Your task to perform on an android device: check data usage Image 0: 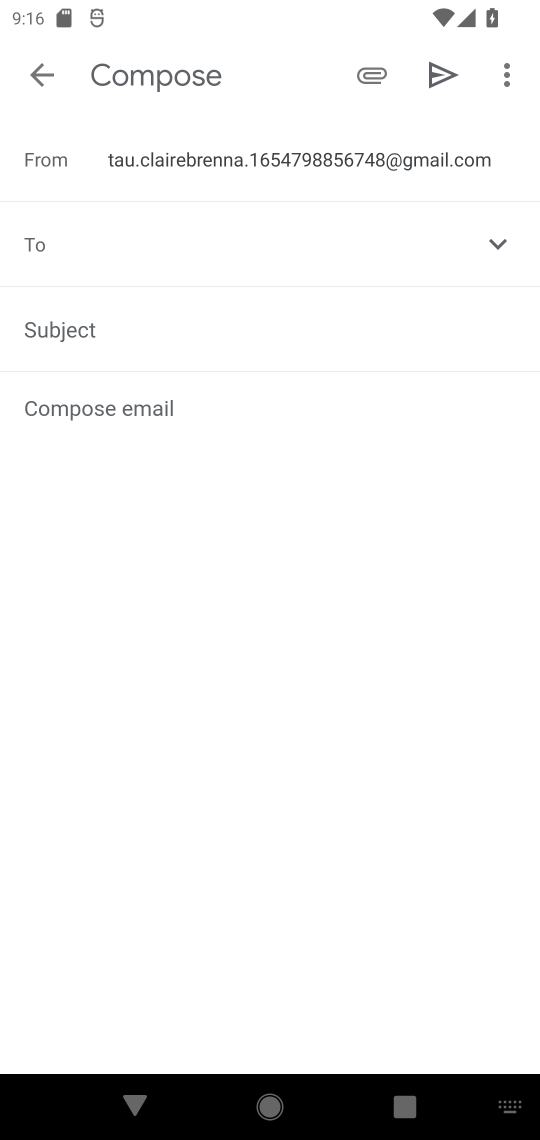
Step 0: press home button
Your task to perform on an android device: check data usage Image 1: 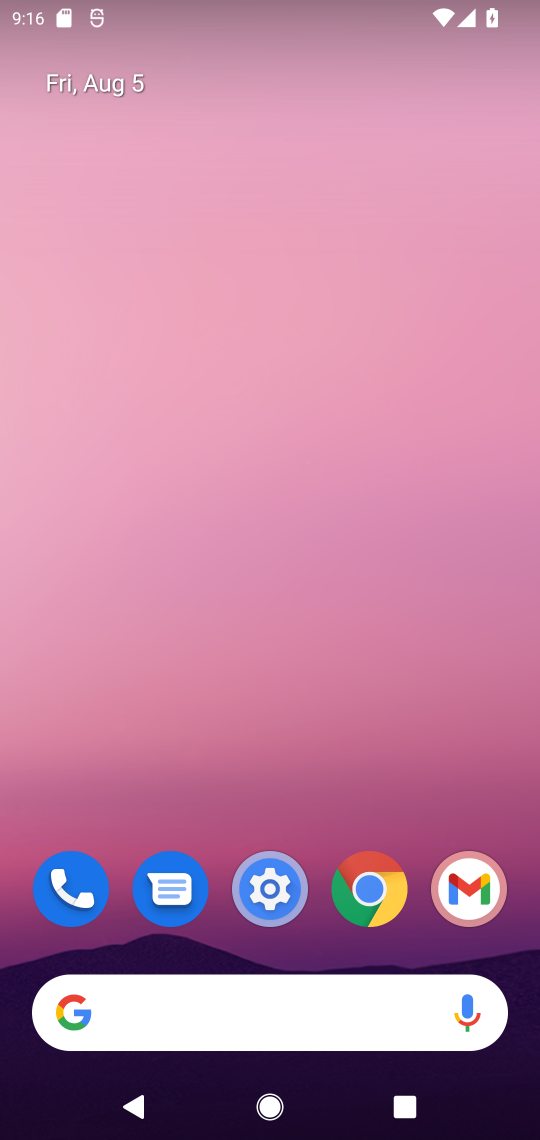
Step 1: drag from (235, 967) to (319, 172)
Your task to perform on an android device: check data usage Image 2: 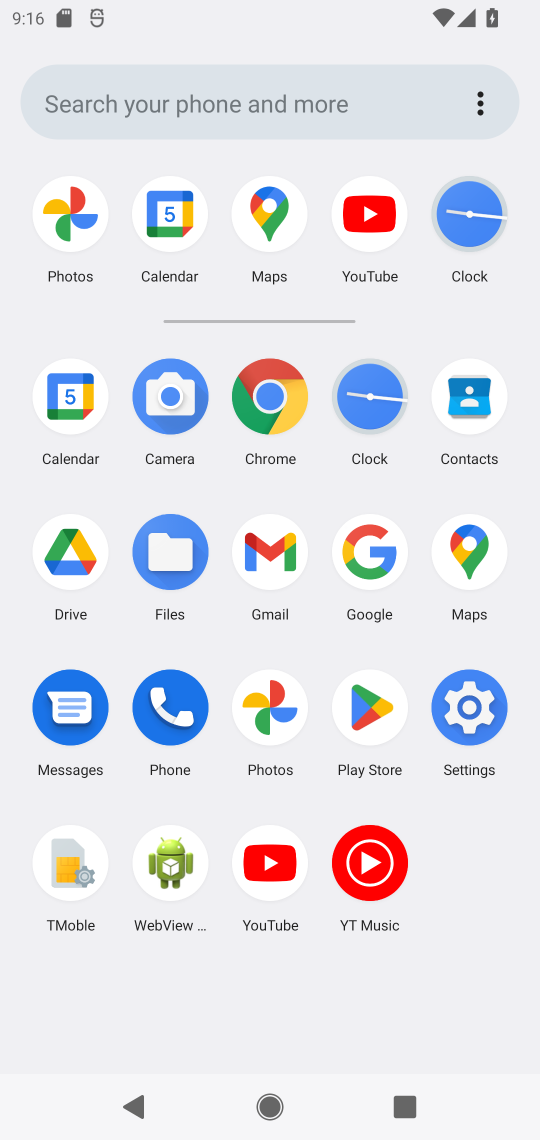
Step 2: click (463, 683)
Your task to perform on an android device: check data usage Image 3: 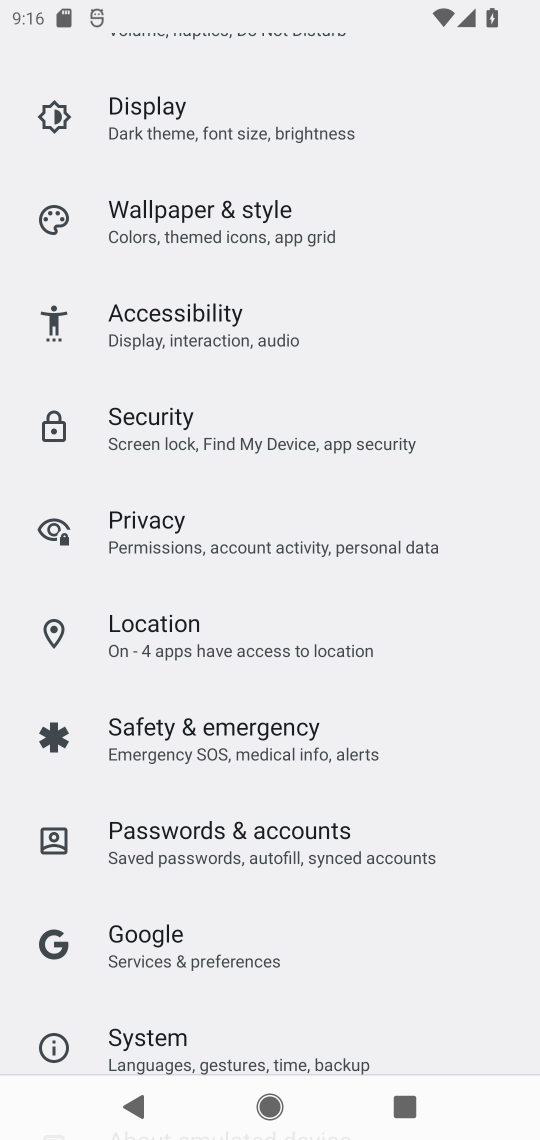
Step 3: drag from (202, 150) to (218, 978)
Your task to perform on an android device: check data usage Image 4: 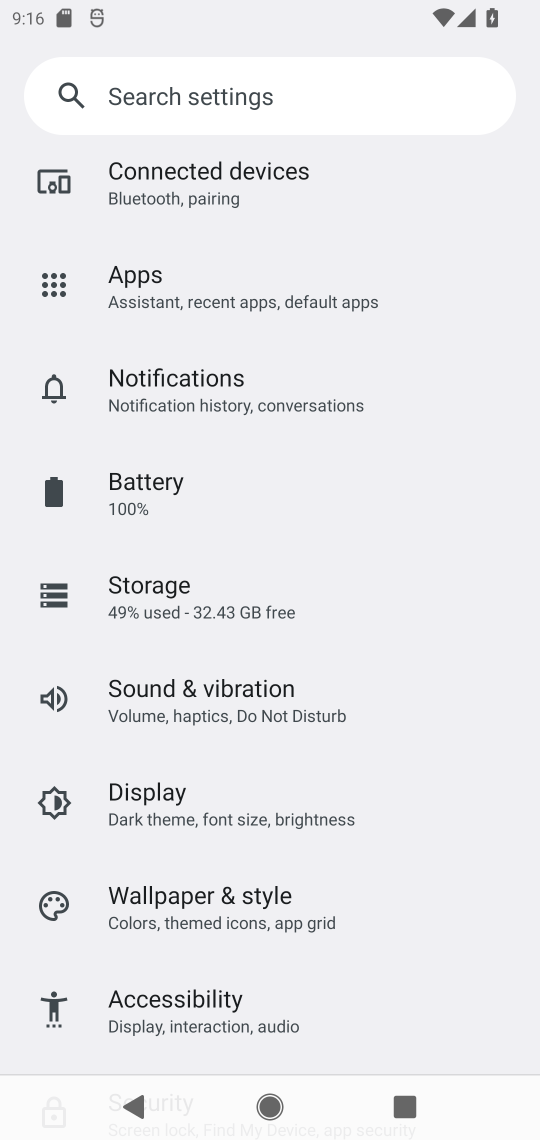
Step 4: drag from (233, 213) to (268, 1122)
Your task to perform on an android device: check data usage Image 5: 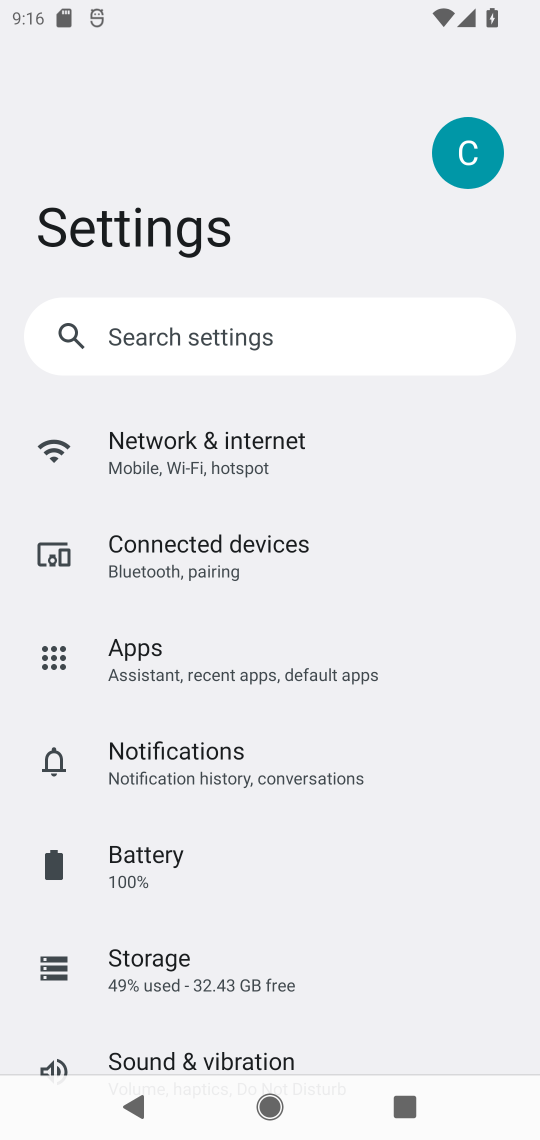
Step 5: click (228, 448)
Your task to perform on an android device: check data usage Image 6: 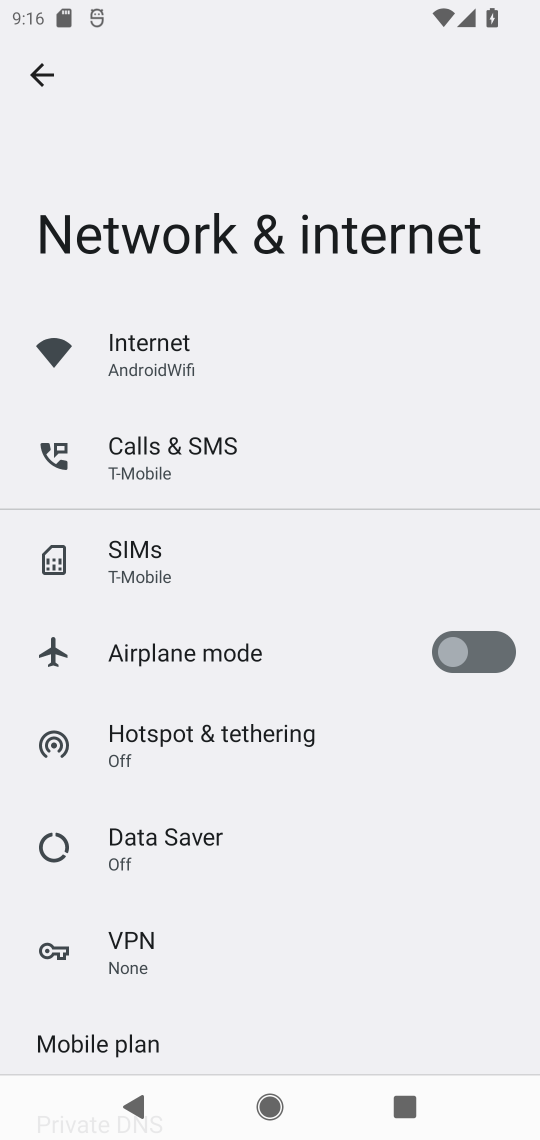
Step 6: click (193, 567)
Your task to perform on an android device: check data usage Image 7: 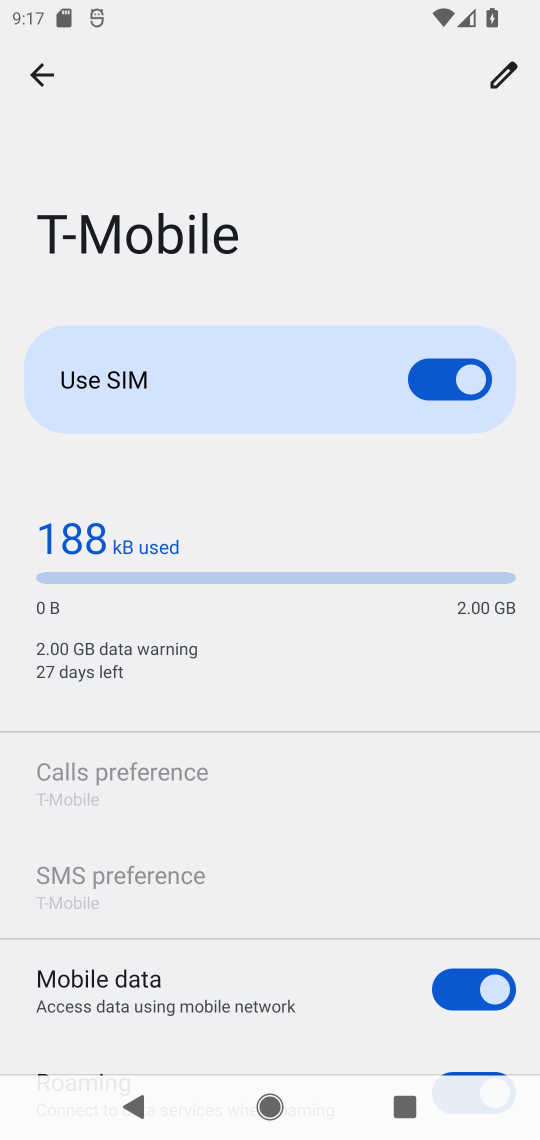
Step 7: task complete